Your task to perform on an android device: Open calendar and show me the first week of next month Image 0: 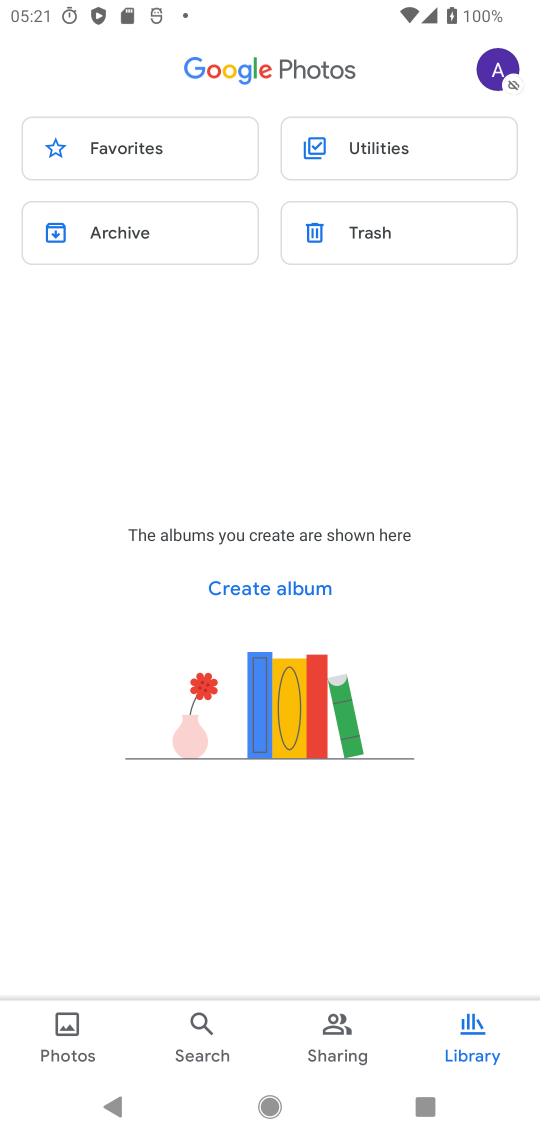
Step 0: press home button
Your task to perform on an android device: Open calendar and show me the first week of next month Image 1: 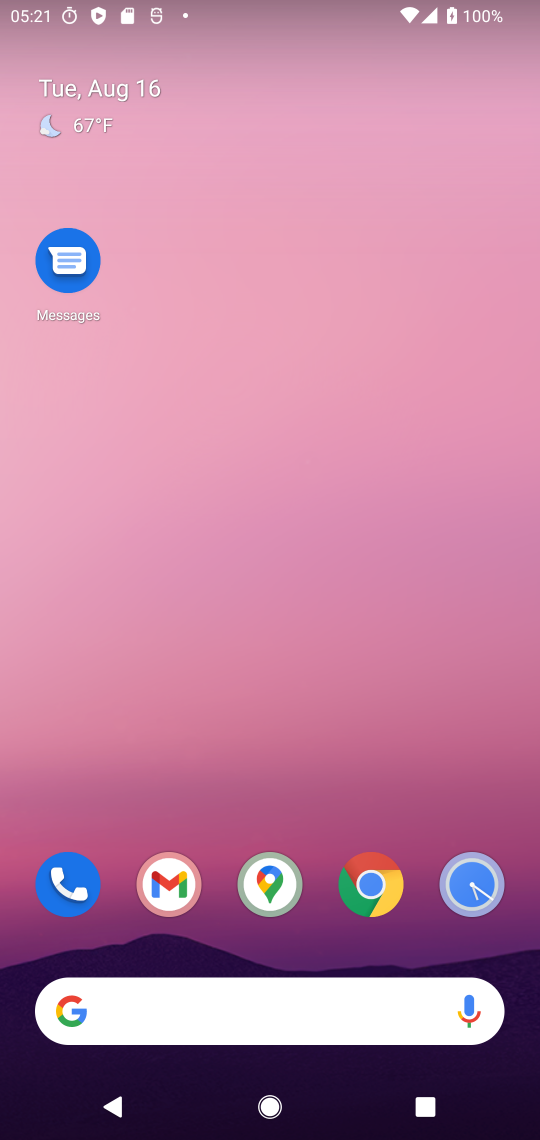
Step 1: drag from (35, 1057) to (381, 137)
Your task to perform on an android device: Open calendar and show me the first week of next month Image 2: 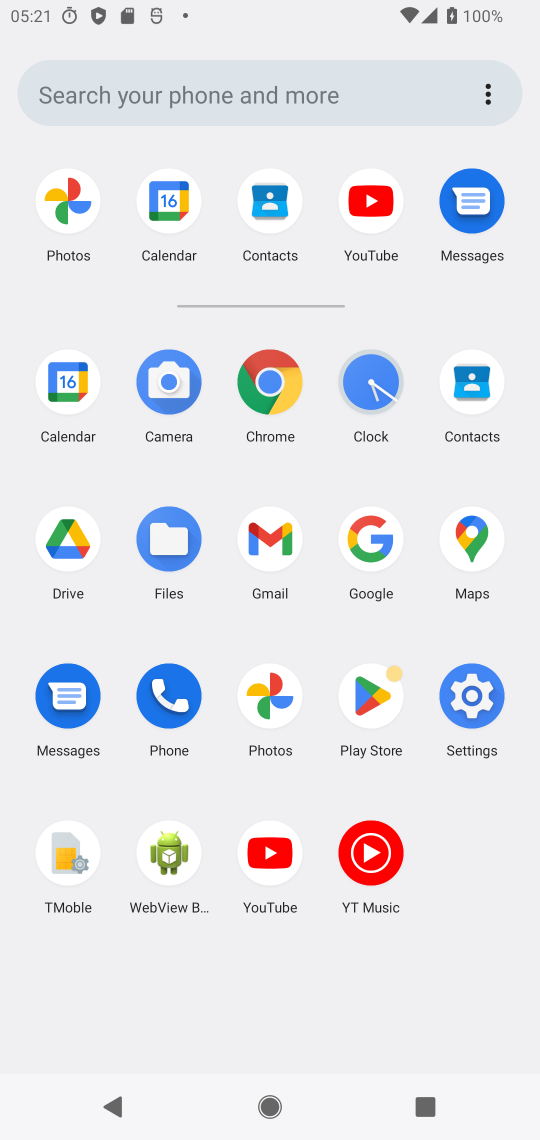
Step 2: click (65, 411)
Your task to perform on an android device: Open calendar and show me the first week of next month Image 3: 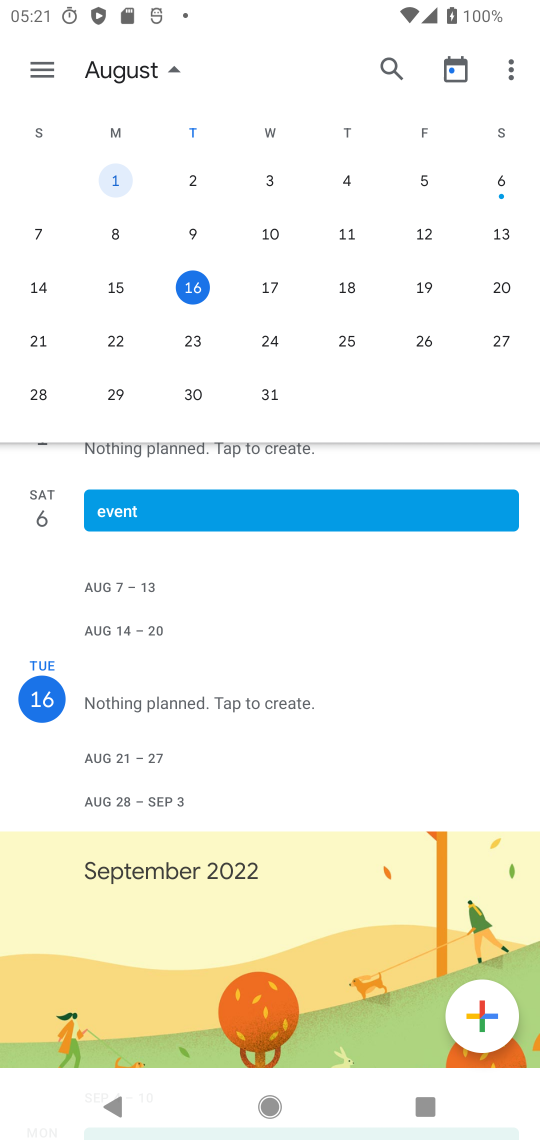
Step 3: task complete